Your task to perform on an android device: check data usage Image 0: 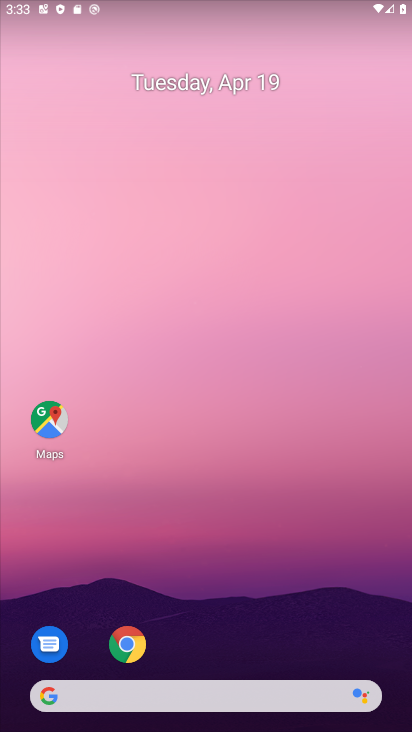
Step 0: drag from (212, 659) to (315, 97)
Your task to perform on an android device: check data usage Image 1: 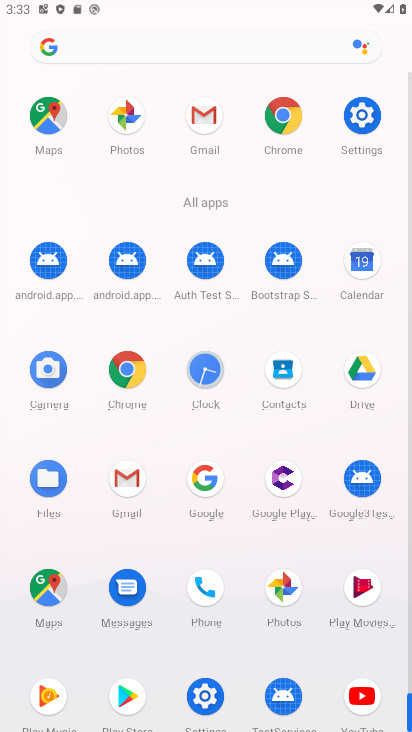
Step 1: click (201, 684)
Your task to perform on an android device: check data usage Image 2: 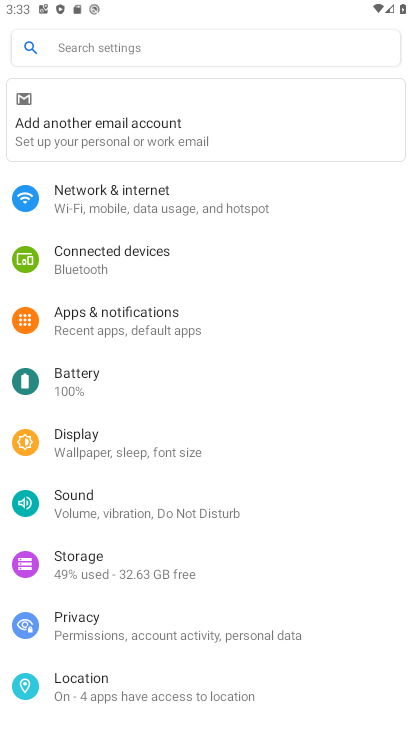
Step 2: click (202, 212)
Your task to perform on an android device: check data usage Image 3: 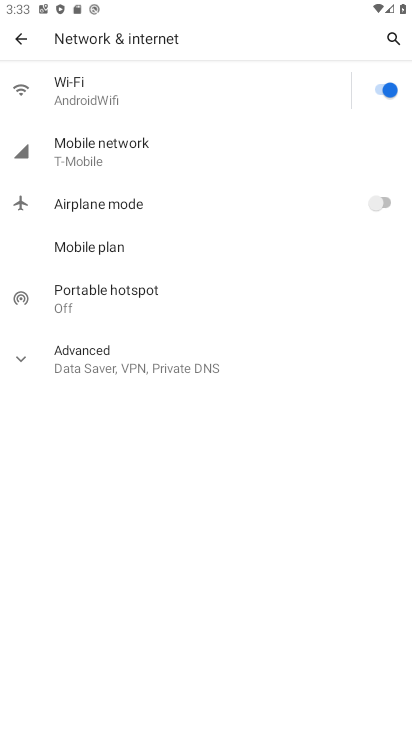
Step 3: click (180, 150)
Your task to perform on an android device: check data usage Image 4: 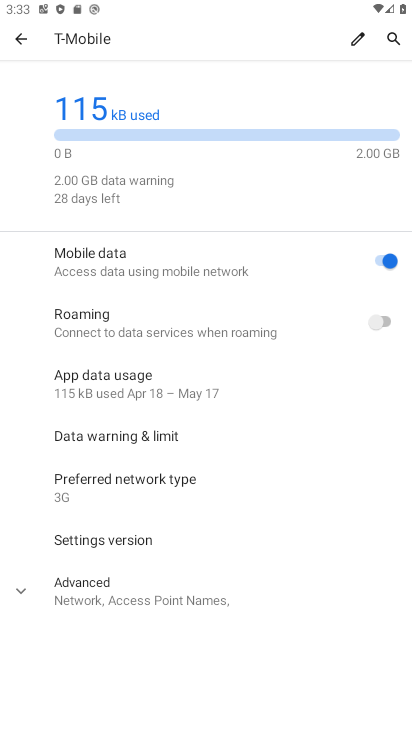
Step 4: click (209, 406)
Your task to perform on an android device: check data usage Image 5: 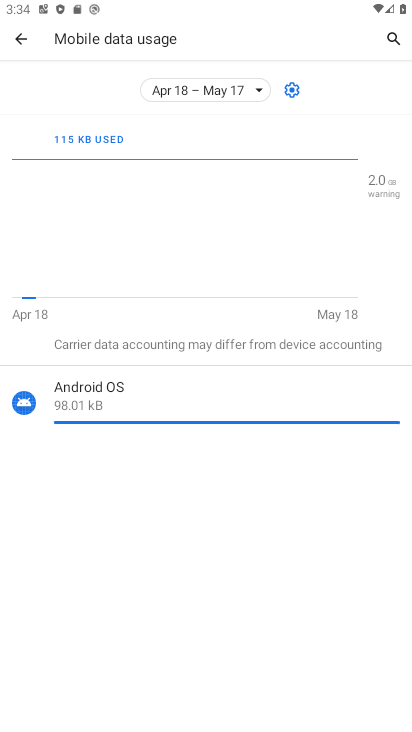
Step 5: task complete